Your task to perform on an android device: Search for vegetarian restaurants on Maps Image 0: 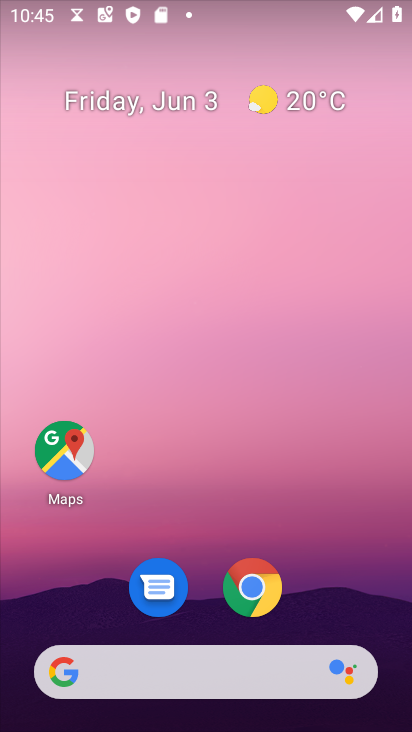
Step 0: click (73, 448)
Your task to perform on an android device: Search for vegetarian restaurants on Maps Image 1: 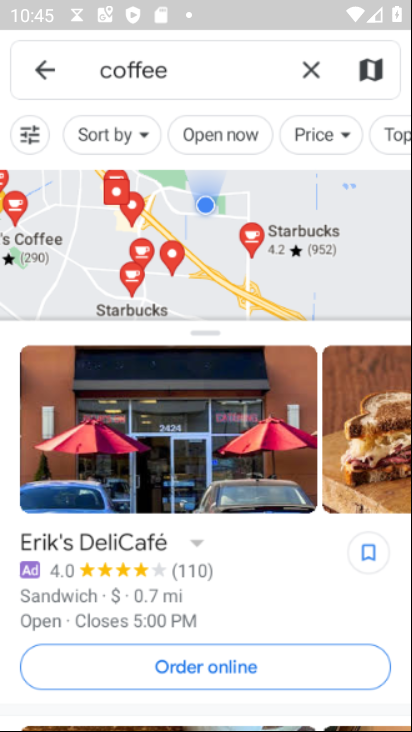
Step 1: click (315, 75)
Your task to perform on an android device: Search for vegetarian restaurants on Maps Image 2: 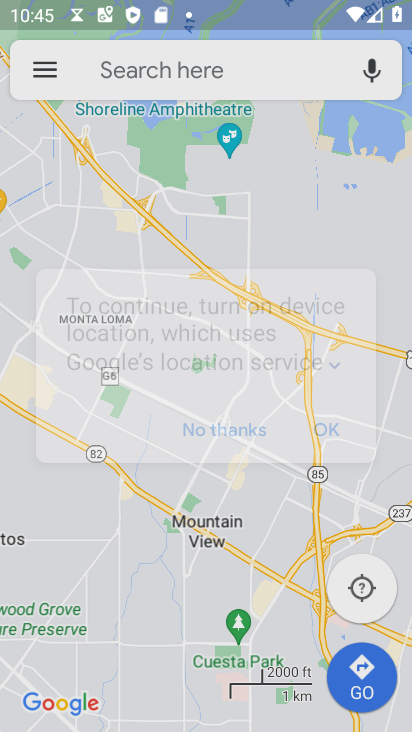
Step 2: click (175, 70)
Your task to perform on an android device: Search for vegetarian restaurants on Maps Image 3: 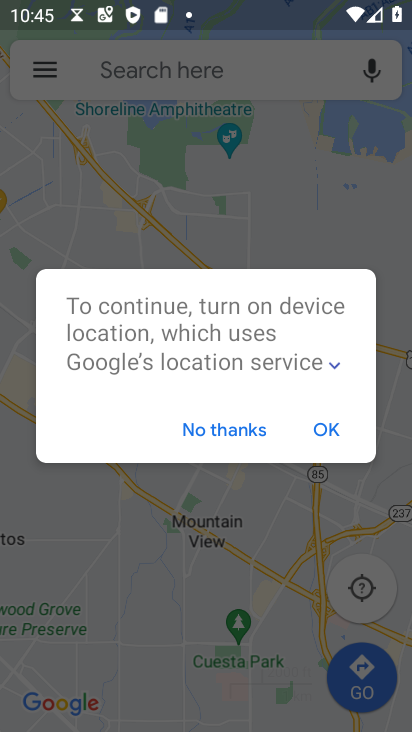
Step 3: click (225, 428)
Your task to perform on an android device: Search for vegetarian restaurants on Maps Image 4: 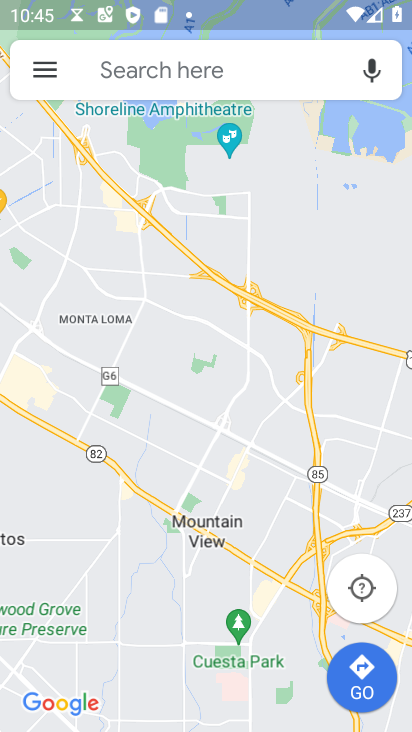
Step 4: click (200, 44)
Your task to perform on an android device: Search for vegetarian restaurants on Maps Image 5: 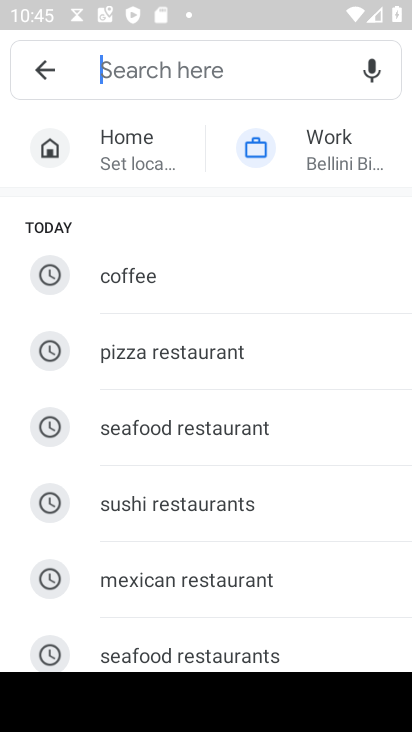
Step 5: drag from (287, 537) to (281, 195)
Your task to perform on an android device: Search for vegetarian restaurants on Maps Image 6: 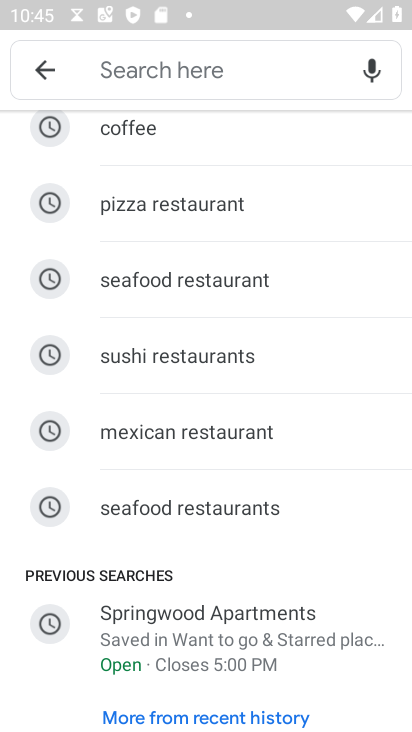
Step 6: click (148, 71)
Your task to perform on an android device: Search for vegetarian restaurants on Maps Image 7: 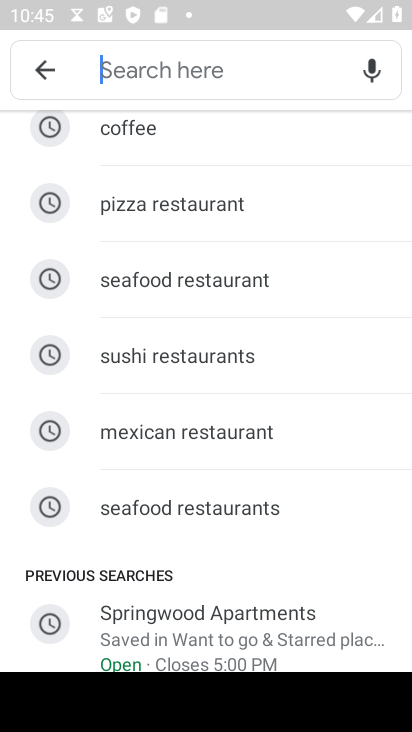
Step 7: type "vegetarian restaurants"
Your task to perform on an android device: Search for vegetarian restaurants on Maps Image 8: 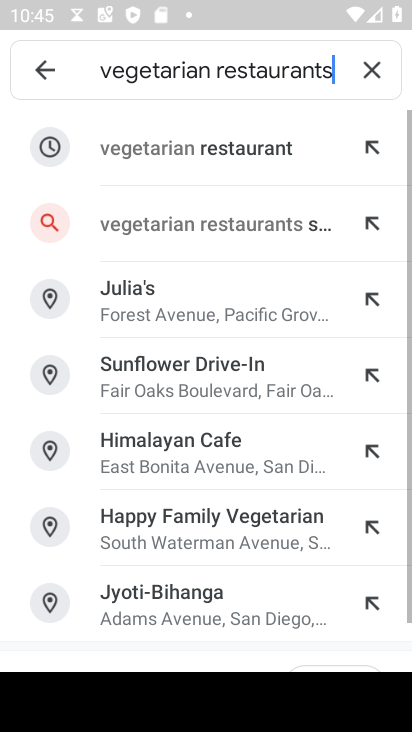
Step 8: click (226, 146)
Your task to perform on an android device: Search for vegetarian restaurants on Maps Image 9: 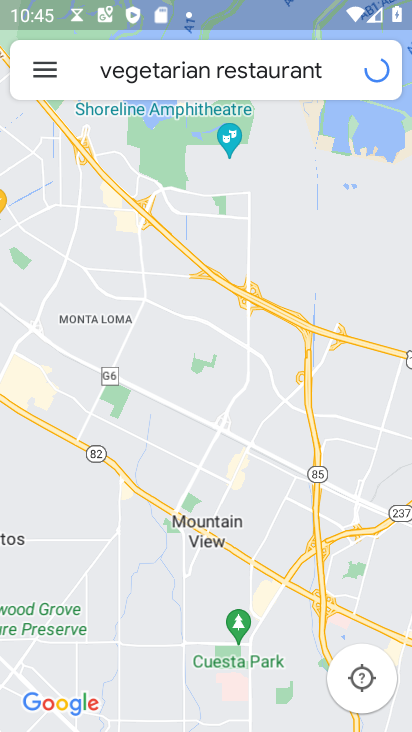
Step 9: task complete